Your task to perform on an android device: create a new album in the google photos Image 0: 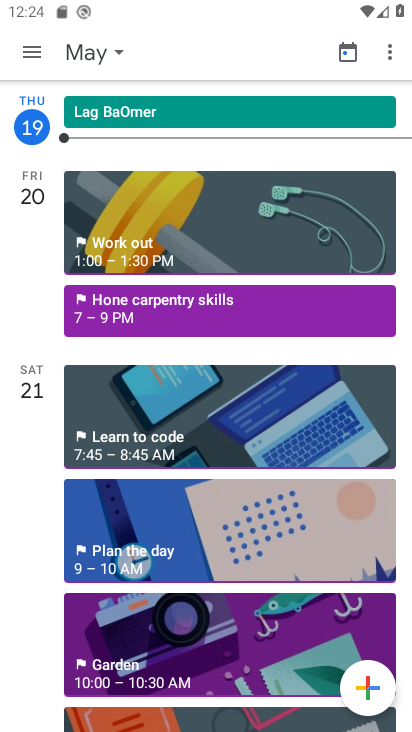
Step 0: press home button
Your task to perform on an android device: create a new album in the google photos Image 1: 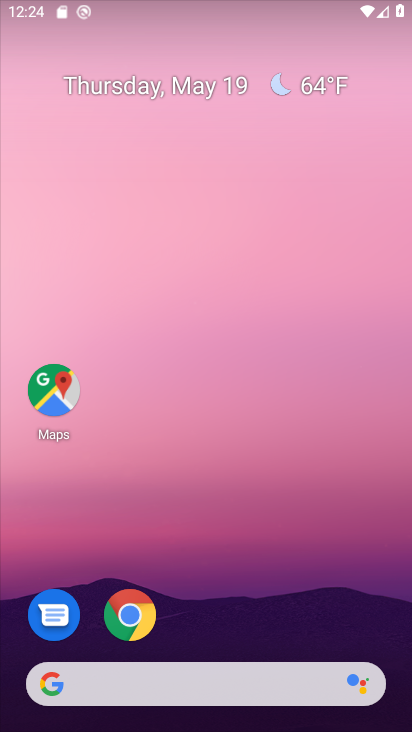
Step 1: drag from (253, 698) to (341, 131)
Your task to perform on an android device: create a new album in the google photos Image 2: 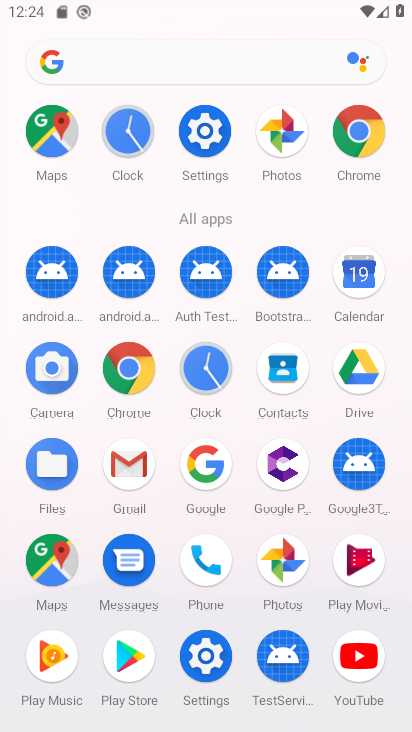
Step 2: click (281, 540)
Your task to perform on an android device: create a new album in the google photos Image 3: 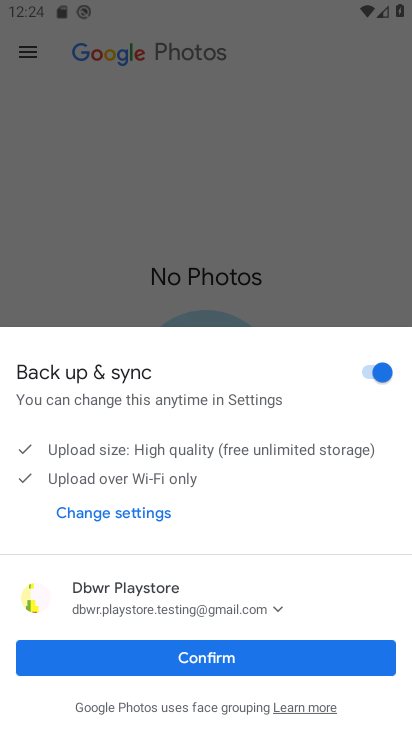
Step 3: click (177, 661)
Your task to perform on an android device: create a new album in the google photos Image 4: 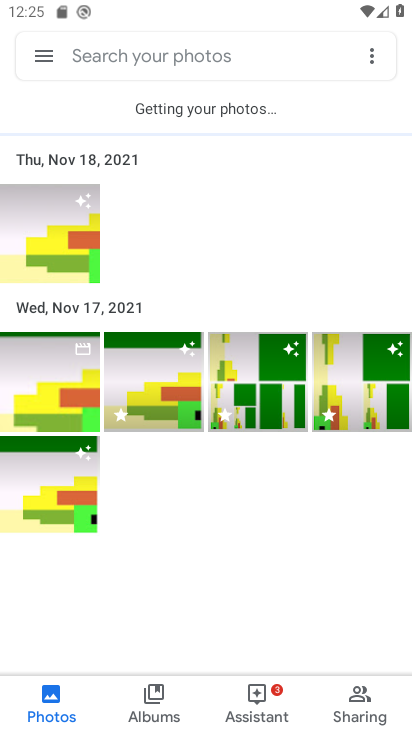
Step 4: click (170, 398)
Your task to perform on an android device: create a new album in the google photos Image 5: 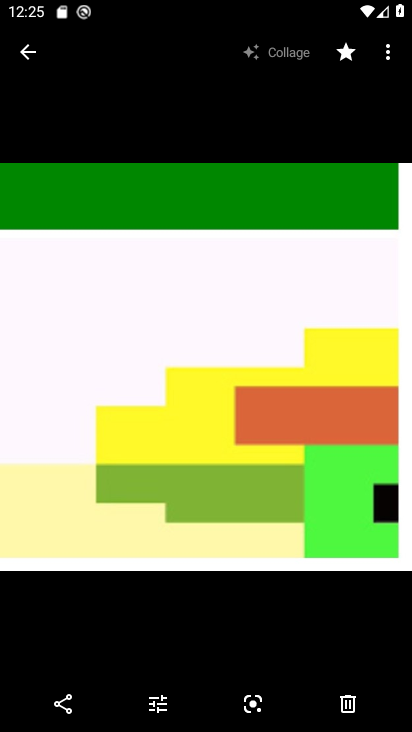
Step 5: click (399, 59)
Your task to perform on an android device: create a new album in the google photos Image 6: 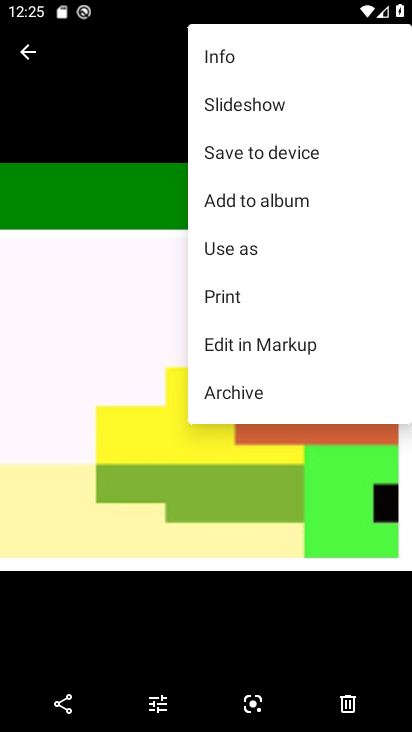
Step 6: click (246, 205)
Your task to perform on an android device: create a new album in the google photos Image 7: 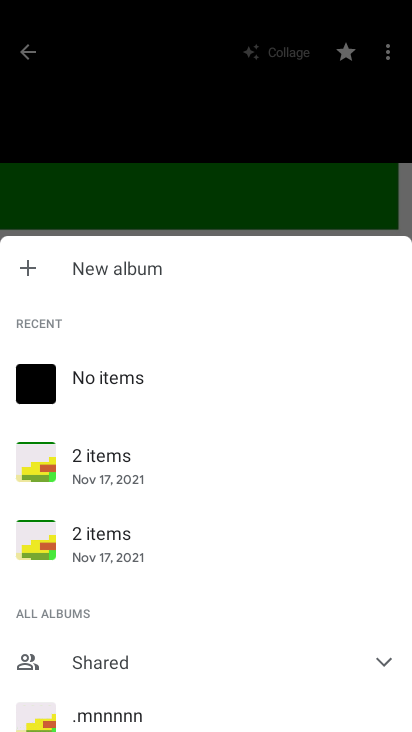
Step 7: click (58, 263)
Your task to perform on an android device: create a new album in the google photos Image 8: 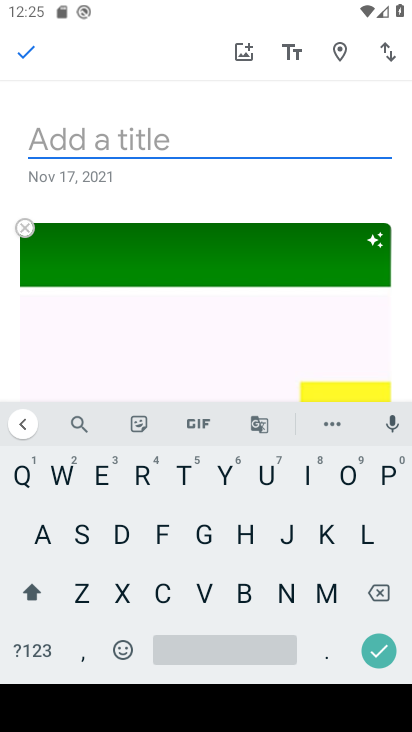
Step 8: click (187, 485)
Your task to perform on an android device: create a new album in the google photos Image 9: 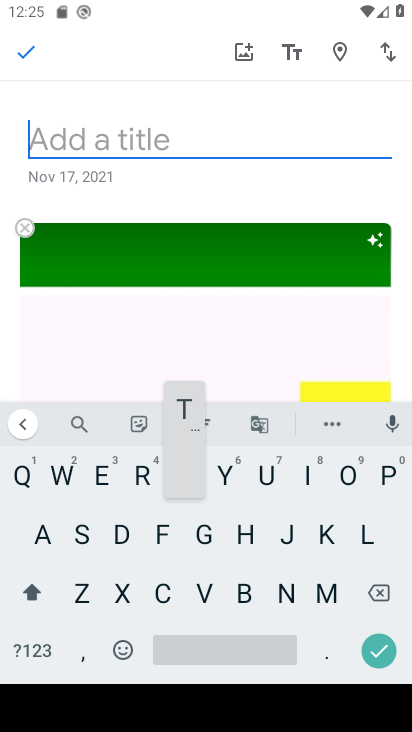
Step 9: click (135, 522)
Your task to perform on an android device: create a new album in the google photos Image 10: 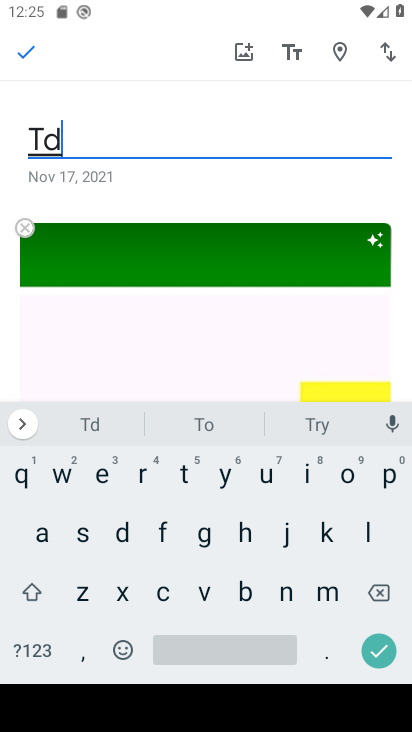
Step 10: click (187, 527)
Your task to perform on an android device: create a new album in the google photos Image 11: 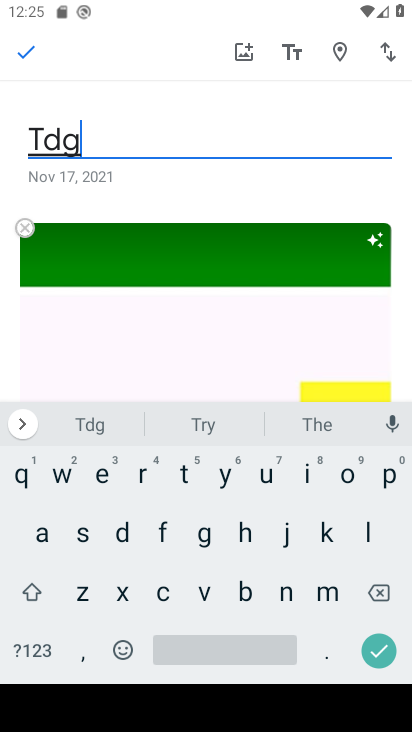
Step 11: click (27, 52)
Your task to perform on an android device: create a new album in the google photos Image 12: 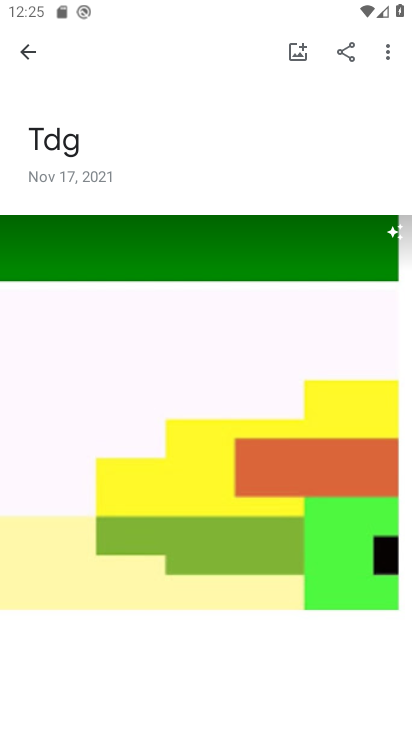
Step 12: task complete